Your task to perform on an android device: open a new tab in the chrome app Image 0: 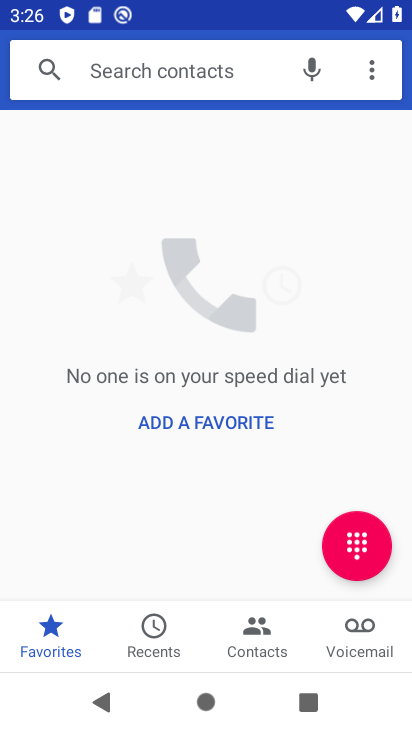
Step 0: press home button
Your task to perform on an android device: open a new tab in the chrome app Image 1: 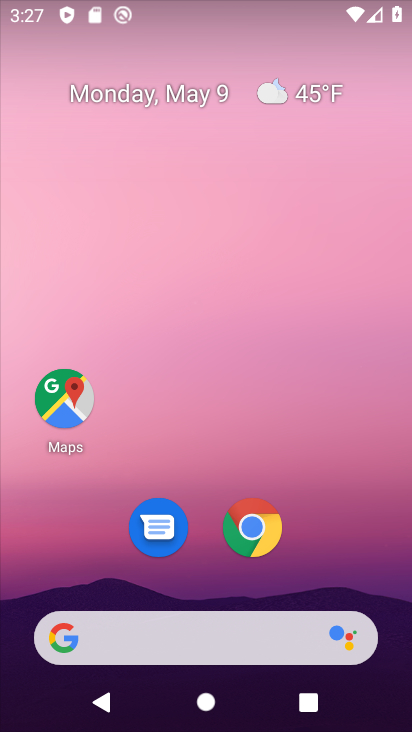
Step 1: click (269, 541)
Your task to perform on an android device: open a new tab in the chrome app Image 2: 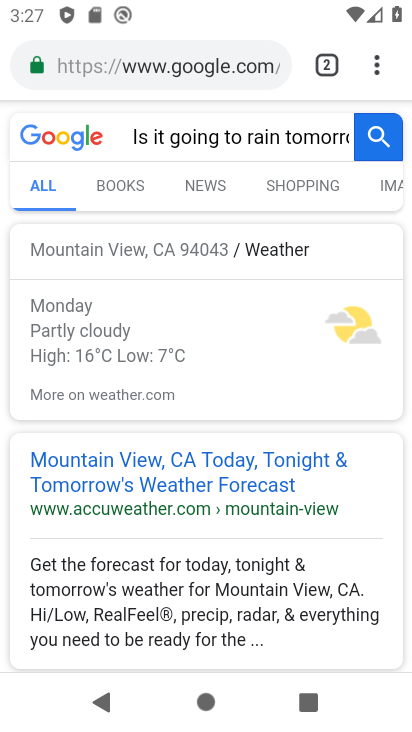
Step 2: click (378, 76)
Your task to perform on an android device: open a new tab in the chrome app Image 3: 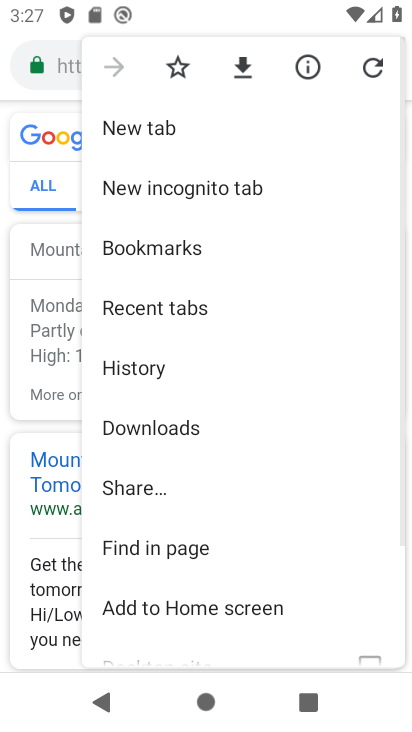
Step 3: click (267, 129)
Your task to perform on an android device: open a new tab in the chrome app Image 4: 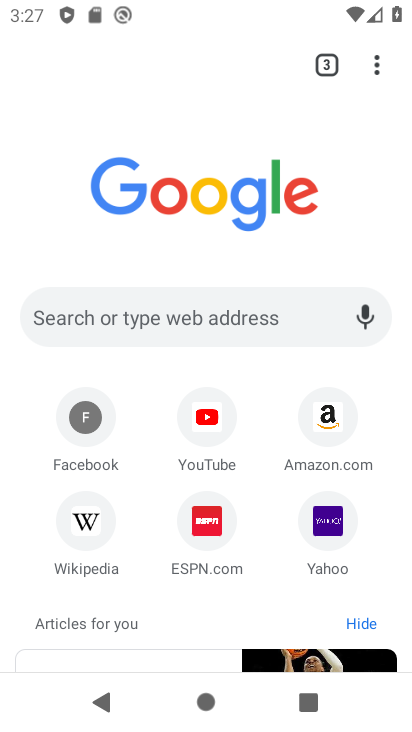
Step 4: task complete